Your task to perform on an android device: What's the weather? Image 0: 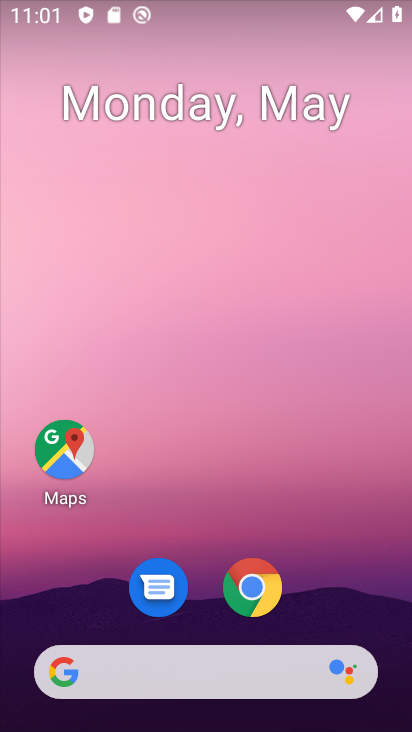
Step 0: click (410, 623)
Your task to perform on an android device: What's the weather? Image 1: 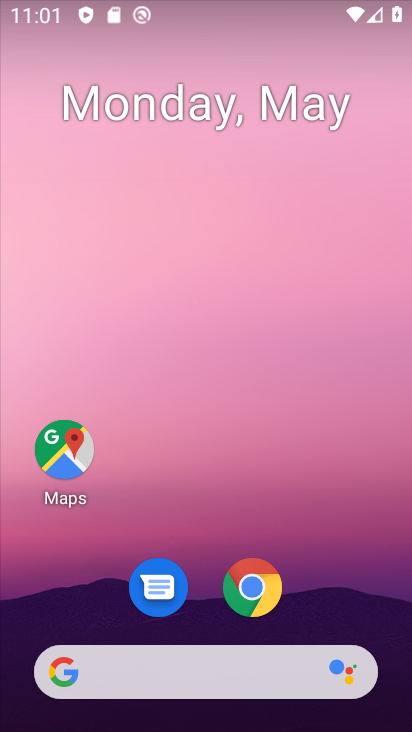
Step 1: drag from (4, 212) to (409, 382)
Your task to perform on an android device: What's the weather? Image 2: 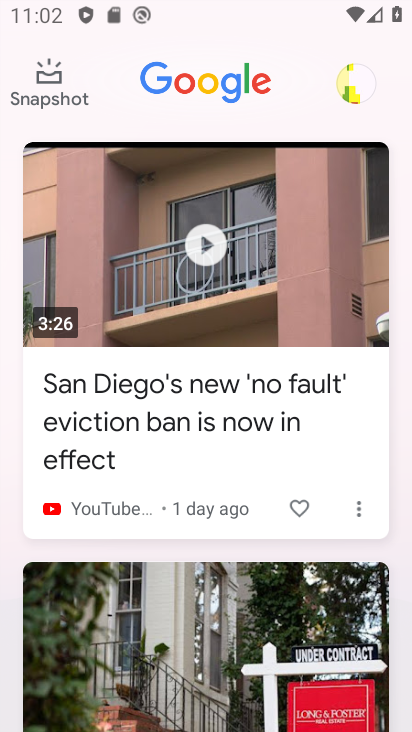
Step 2: drag from (173, 115) to (229, 615)
Your task to perform on an android device: What's the weather? Image 3: 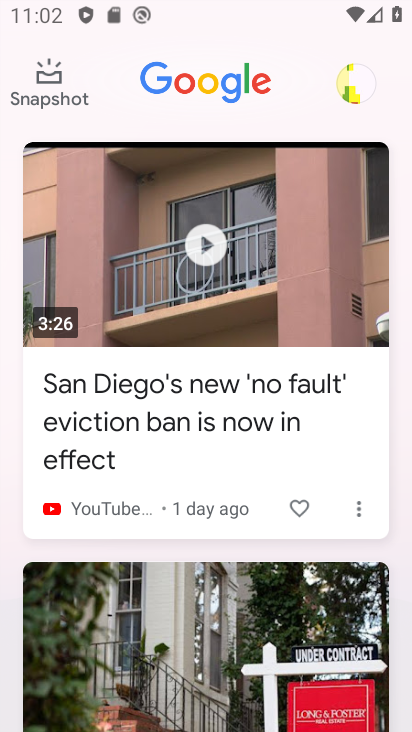
Step 3: drag from (235, 186) to (296, 594)
Your task to perform on an android device: What's the weather? Image 4: 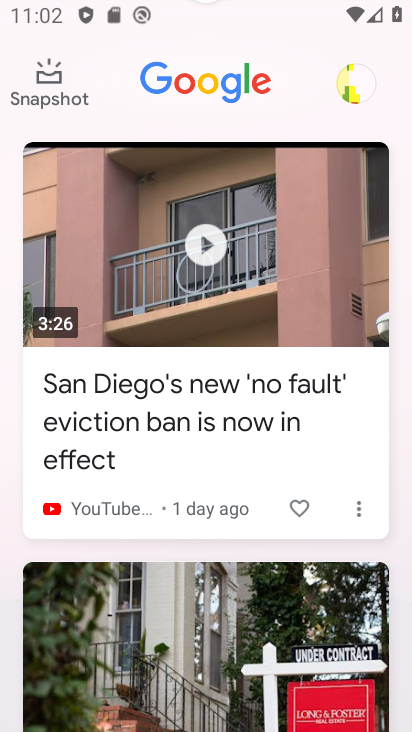
Step 4: drag from (227, 136) to (227, 639)
Your task to perform on an android device: What's the weather? Image 5: 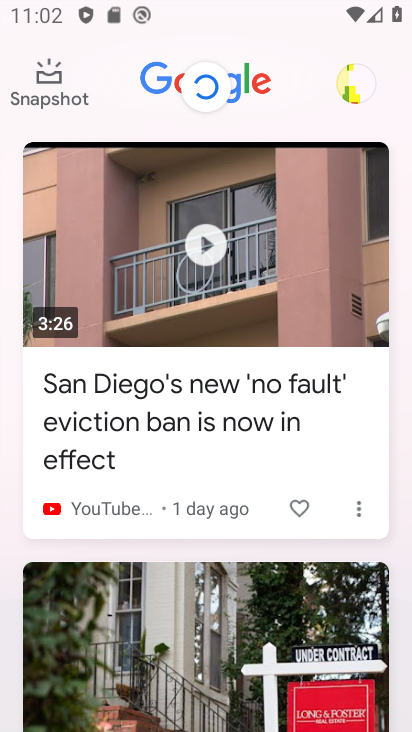
Step 5: drag from (173, 193) to (246, 688)
Your task to perform on an android device: What's the weather? Image 6: 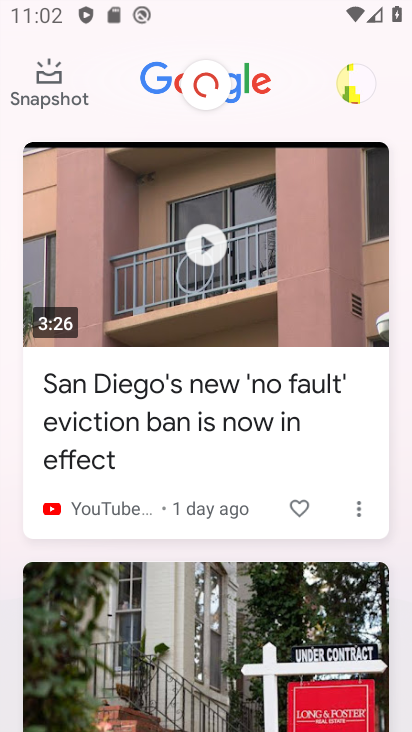
Step 6: drag from (277, 471) to (278, 690)
Your task to perform on an android device: What's the weather? Image 7: 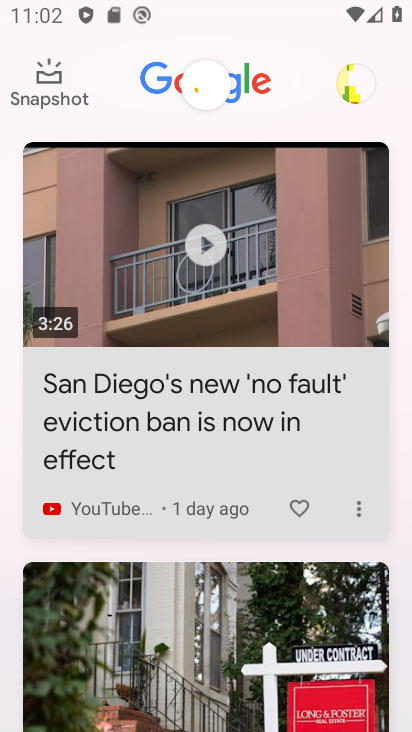
Step 7: drag from (145, 112) to (221, 604)
Your task to perform on an android device: What's the weather? Image 8: 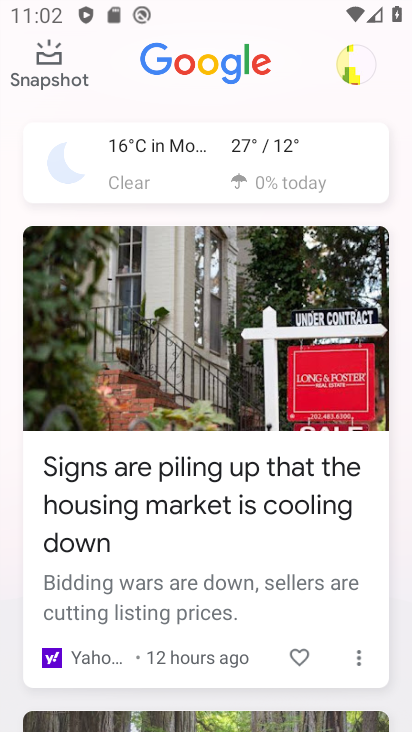
Step 8: drag from (143, 150) to (231, 565)
Your task to perform on an android device: What's the weather? Image 9: 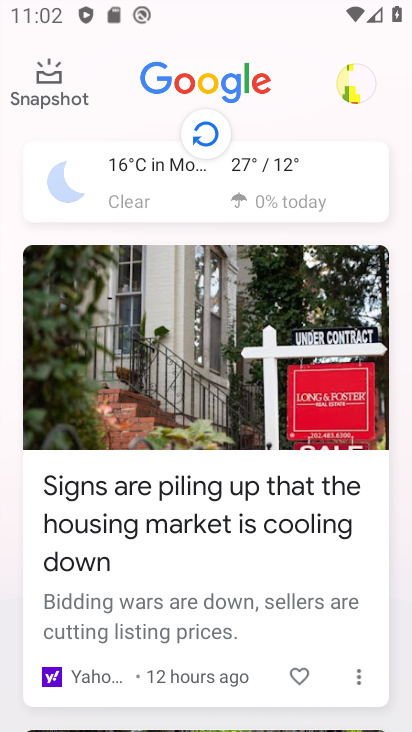
Step 9: drag from (167, 106) to (183, 183)
Your task to perform on an android device: What's the weather? Image 10: 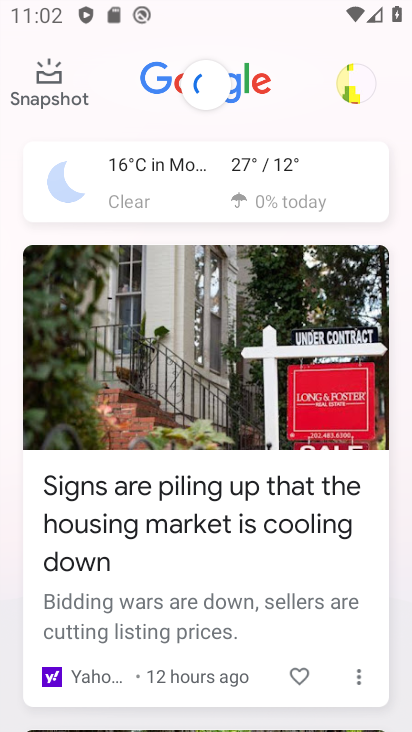
Step 10: click (179, 165)
Your task to perform on an android device: What's the weather? Image 11: 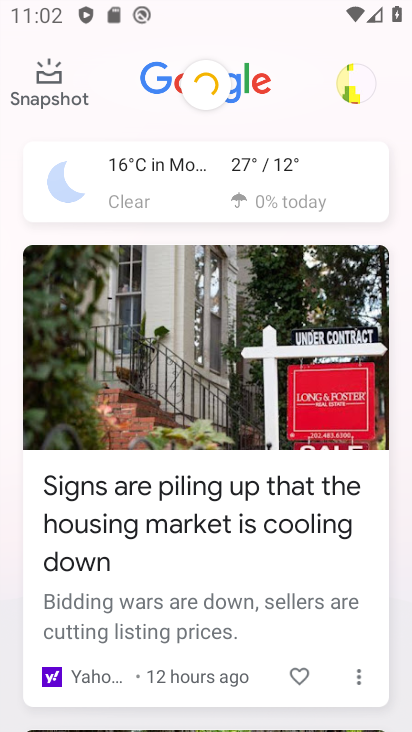
Step 11: click (180, 173)
Your task to perform on an android device: What's the weather? Image 12: 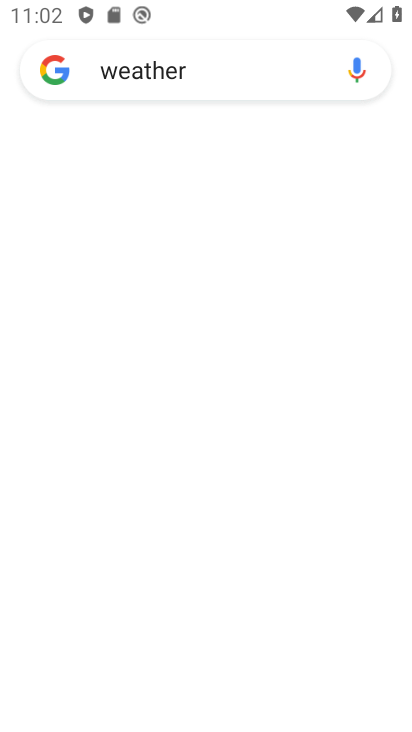
Step 12: click (180, 173)
Your task to perform on an android device: What's the weather? Image 13: 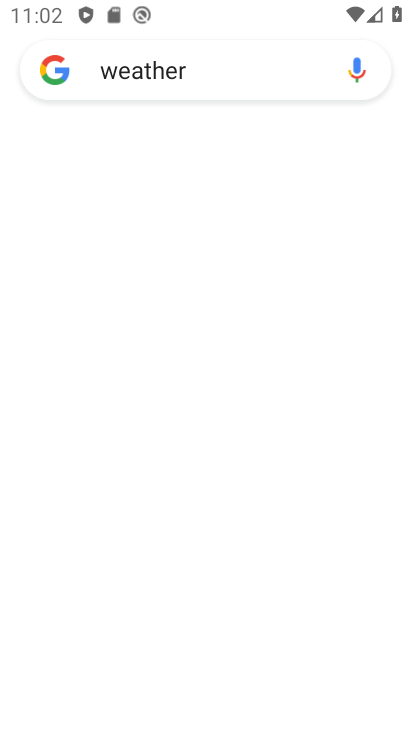
Step 13: click (180, 173)
Your task to perform on an android device: What's the weather? Image 14: 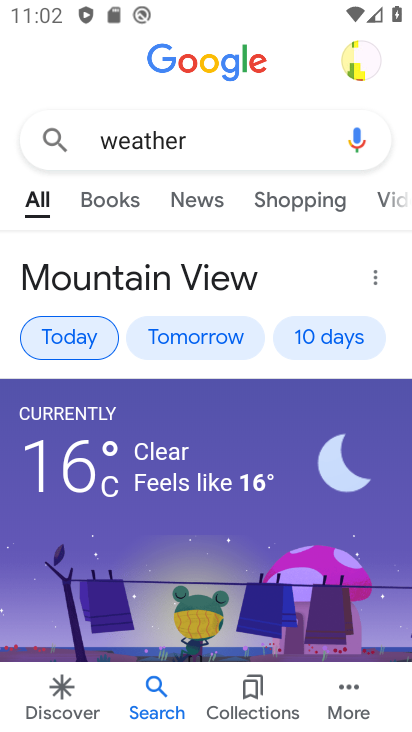
Step 14: task complete